Your task to perform on an android device: Open internet settings Image 0: 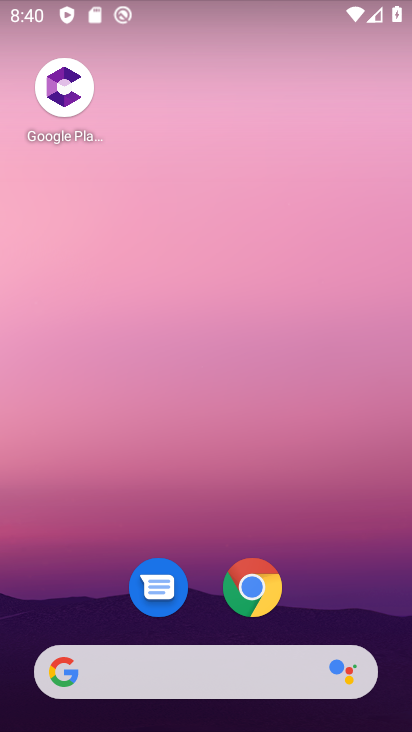
Step 0: drag from (384, 607) to (401, 32)
Your task to perform on an android device: Open internet settings Image 1: 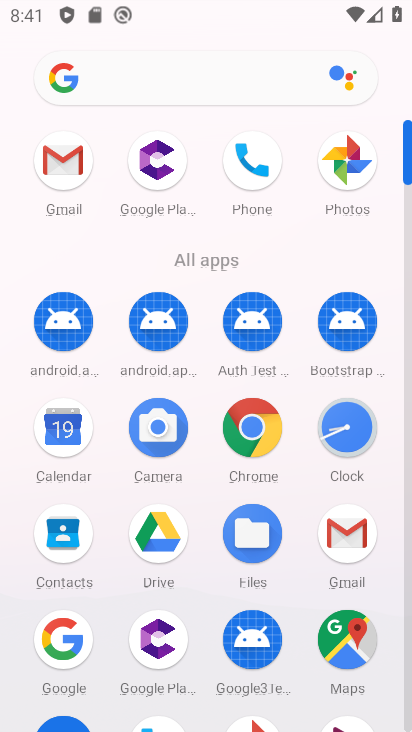
Step 1: drag from (405, 525) to (407, 486)
Your task to perform on an android device: Open internet settings Image 2: 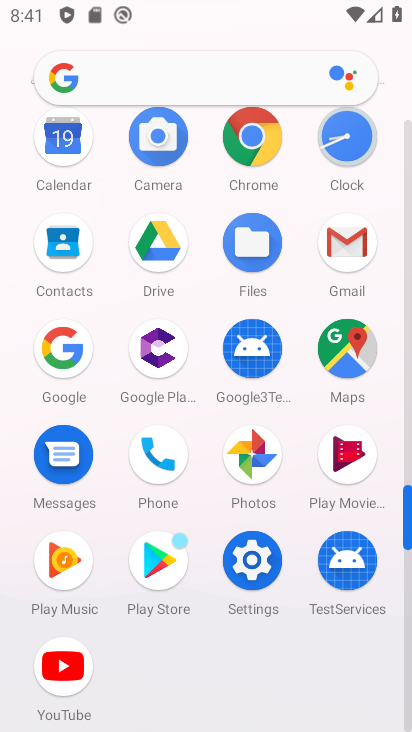
Step 2: click (257, 566)
Your task to perform on an android device: Open internet settings Image 3: 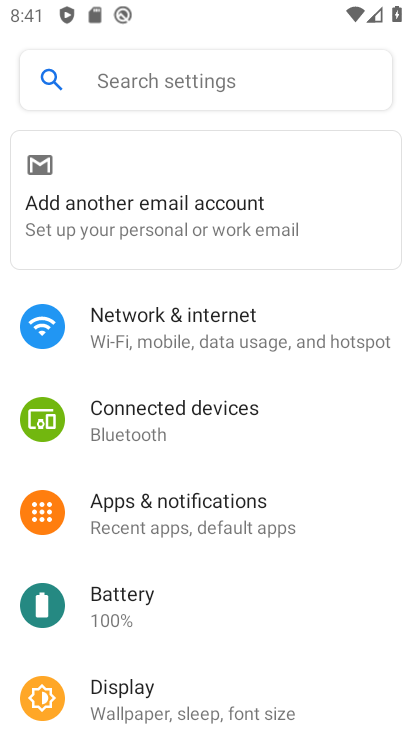
Step 3: click (183, 344)
Your task to perform on an android device: Open internet settings Image 4: 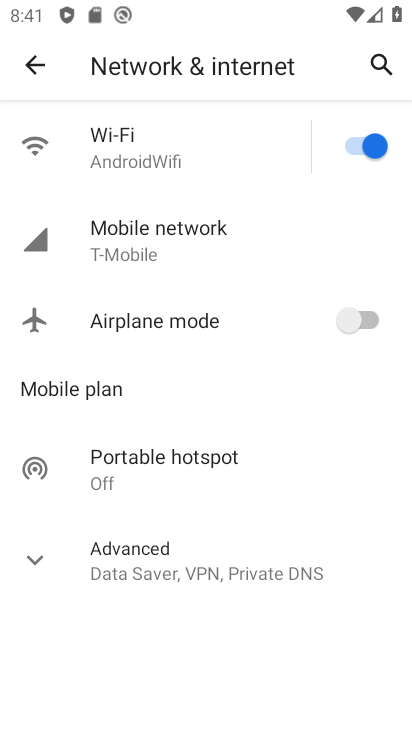
Step 4: click (29, 568)
Your task to perform on an android device: Open internet settings Image 5: 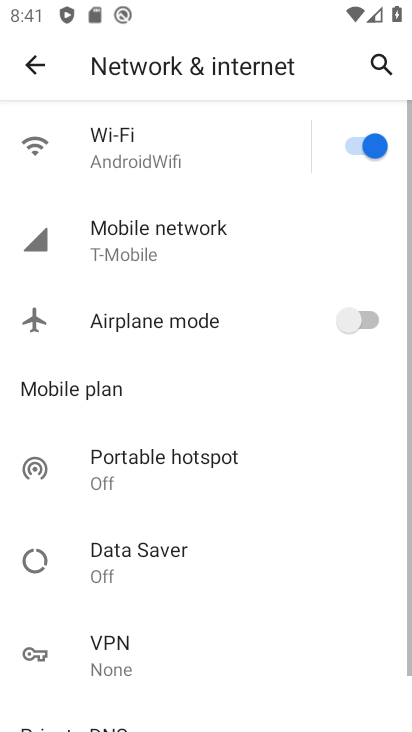
Step 5: task complete